Your task to perform on an android device: Open the calendar app, open the side menu, and click the "Day" option Image 0: 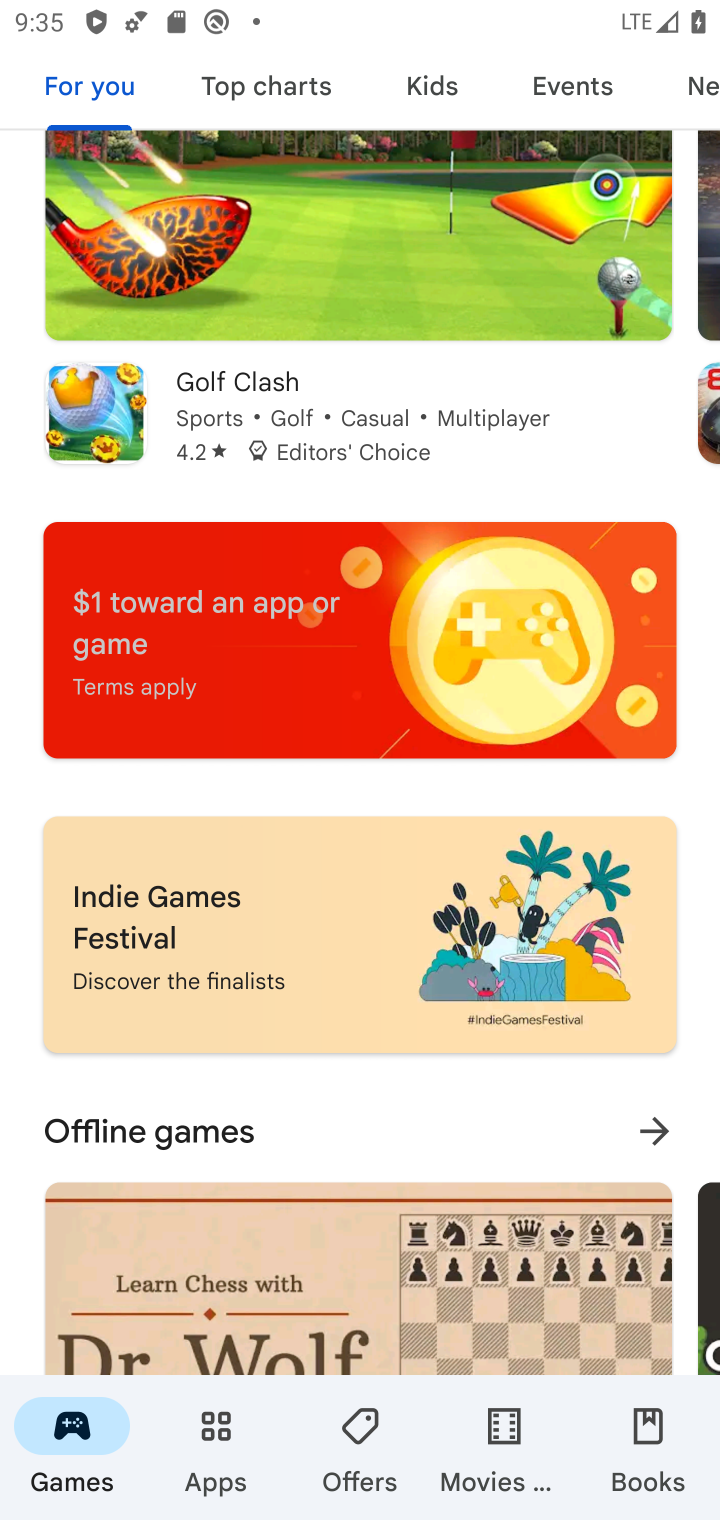
Step 0: press home button
Your task to perform on an android device: Open the calendar app, open the side menu, and click the "Day" option Image 1: 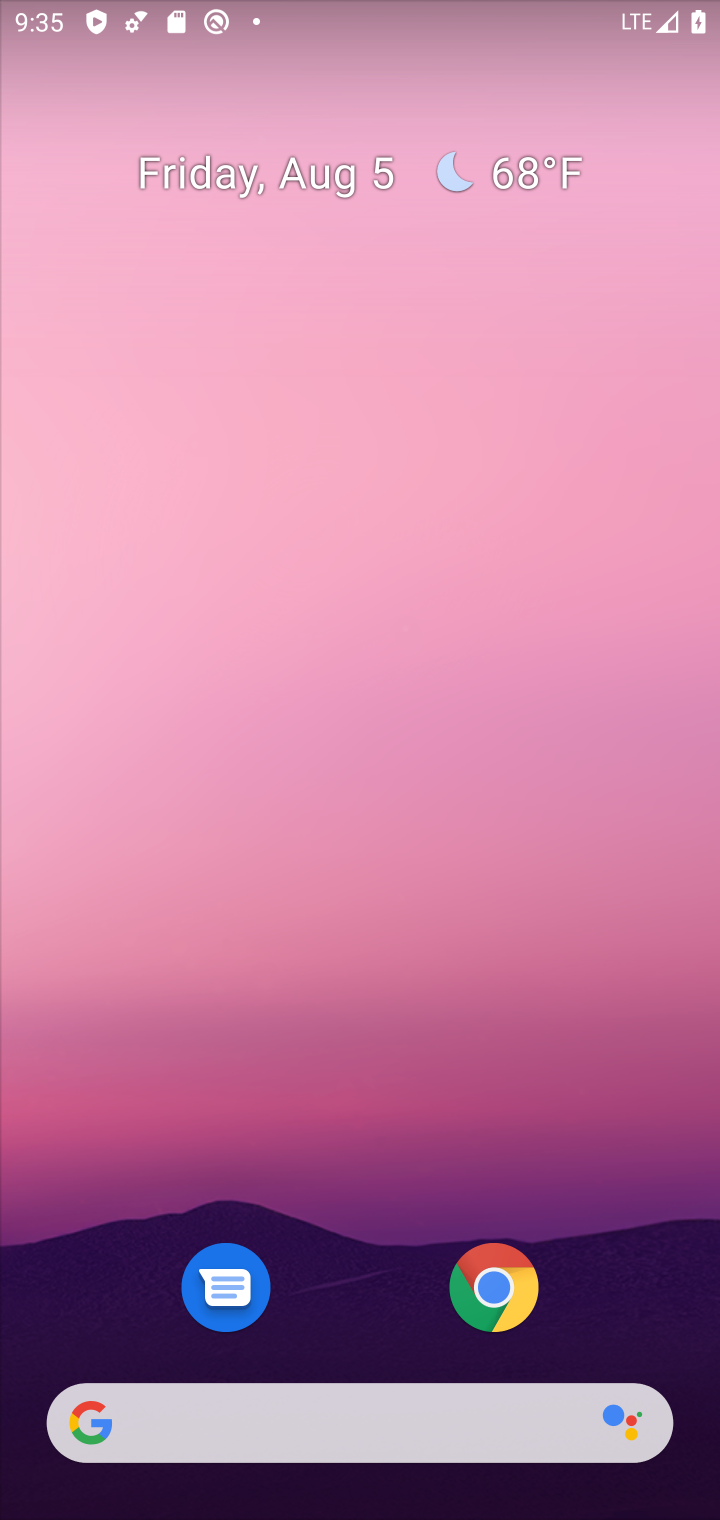
Step 1: drag from (339, 1372) to (278, 433)
Your task to perform on an android device: Open the calendar app, open the side menu, and click the "Day" option Image 2: 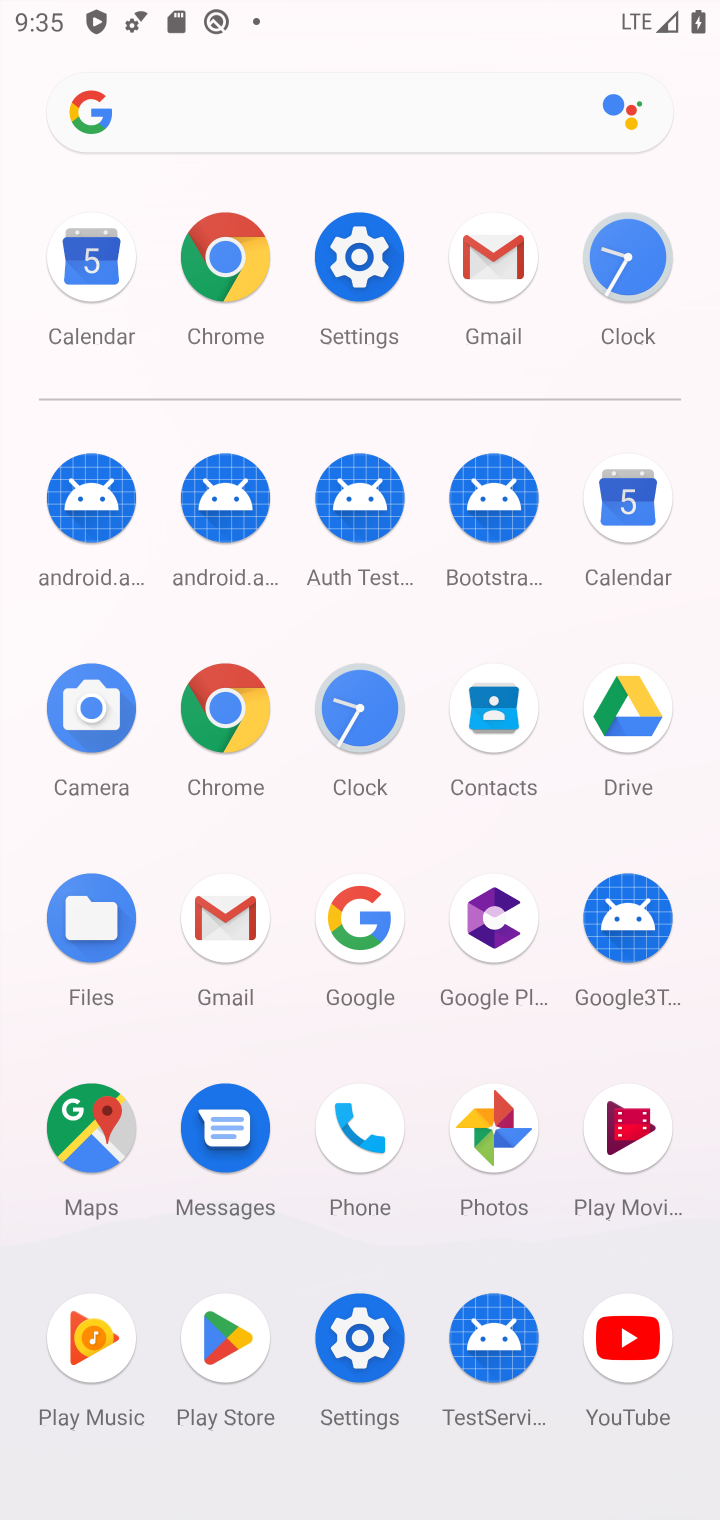
Step 2: click (628, 505)
Your task to perform on an android device: Open the calendar app, open the side menu, and click the "Day" option Image 3: 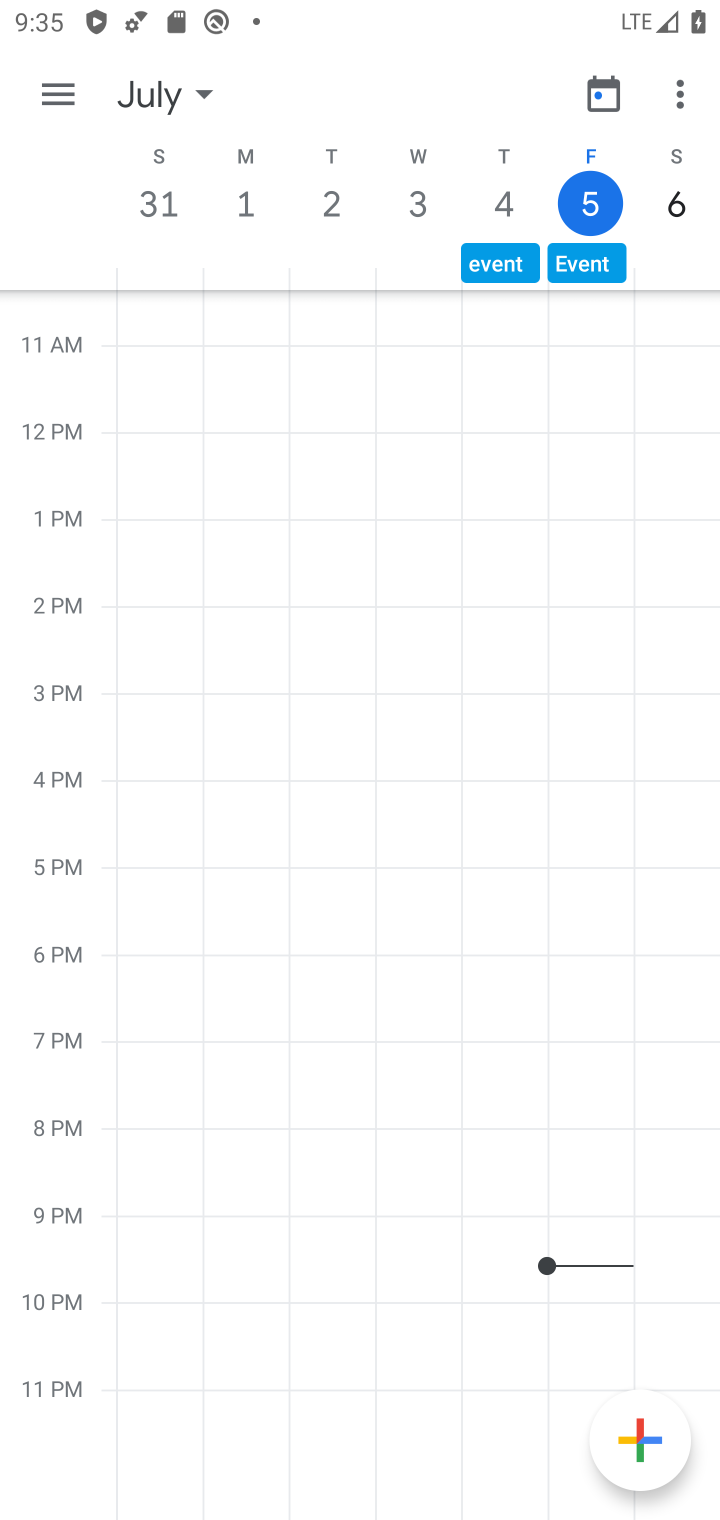
Step 3: click (61, 90)
Your task to perform on an android device: Open the calendar app, open the side menu, and click the "Day" option Image 4: 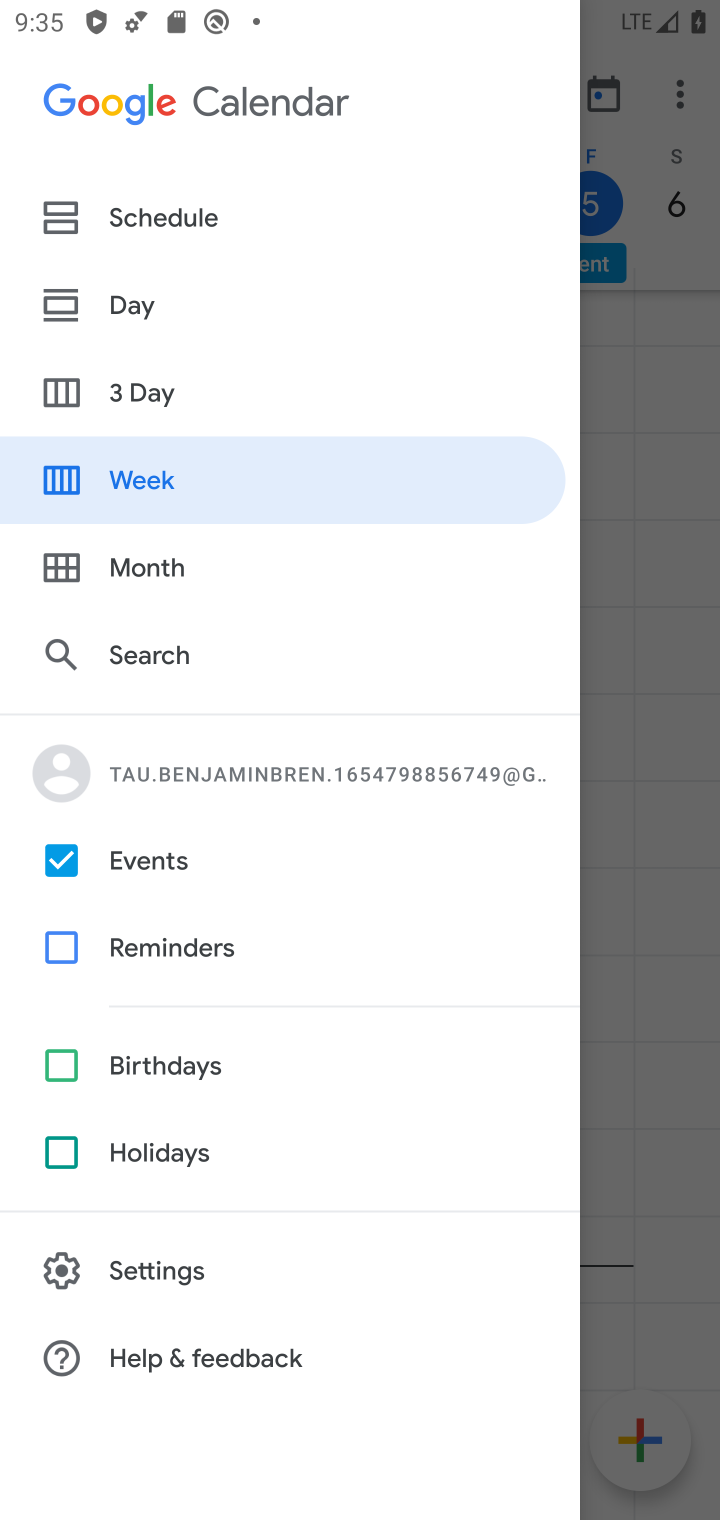
Step 4: click (144, 296)
Your task to perform on an android device: Open the calendar app, open the side menu, and click the "Day" option Image 5: 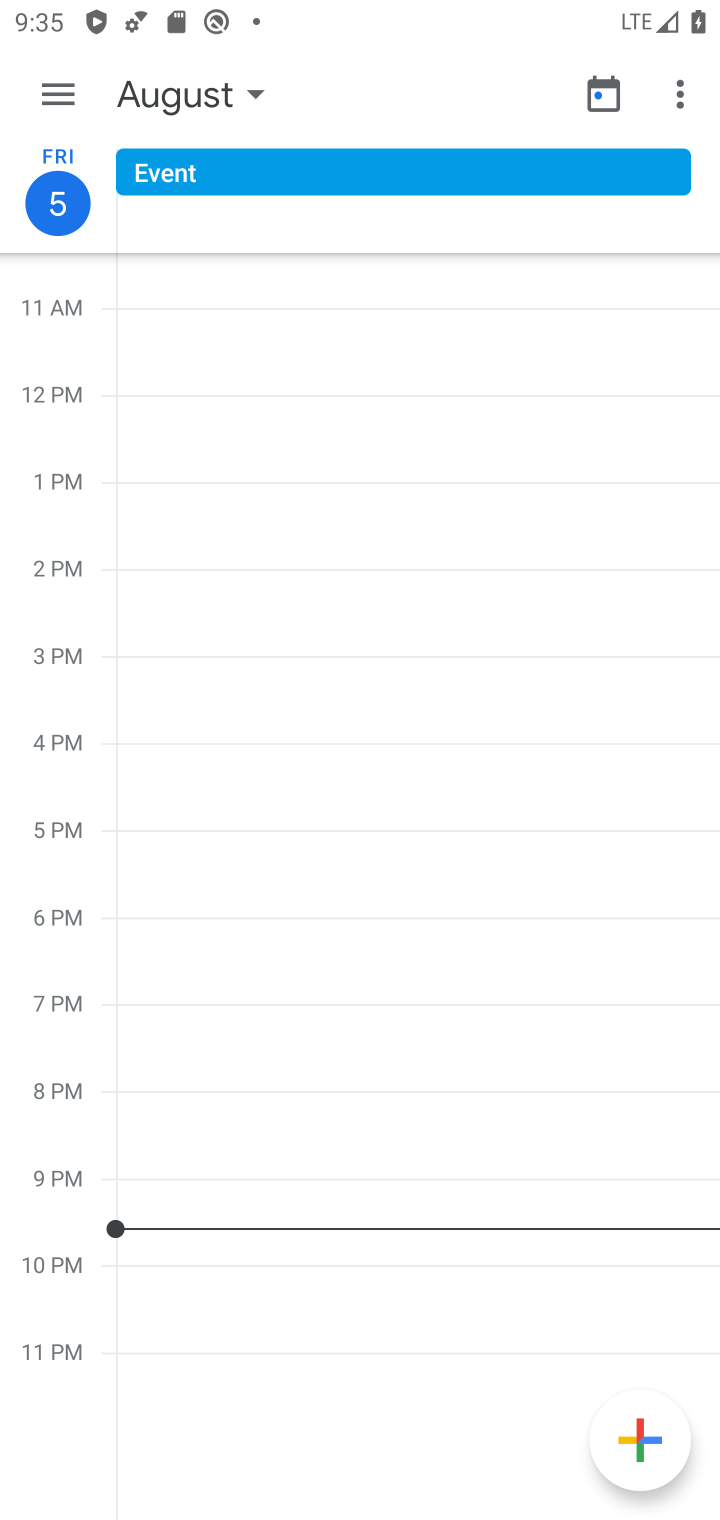
Step 5: task complete